Your task to perform on an android device: set the timer Image 0: 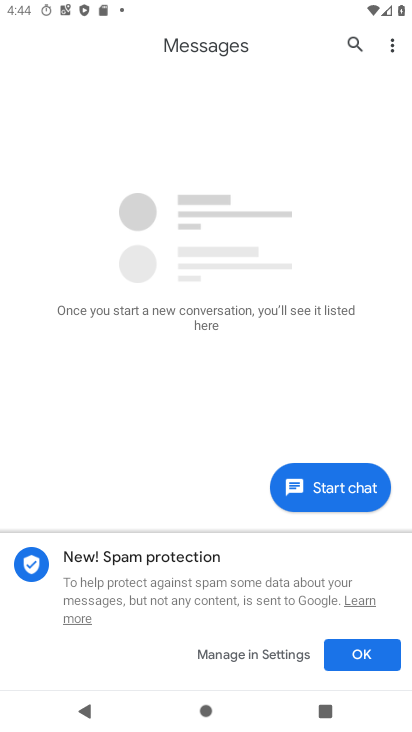
Step 0: press home button
Your task to perform on an android device: set the timer Image 1: 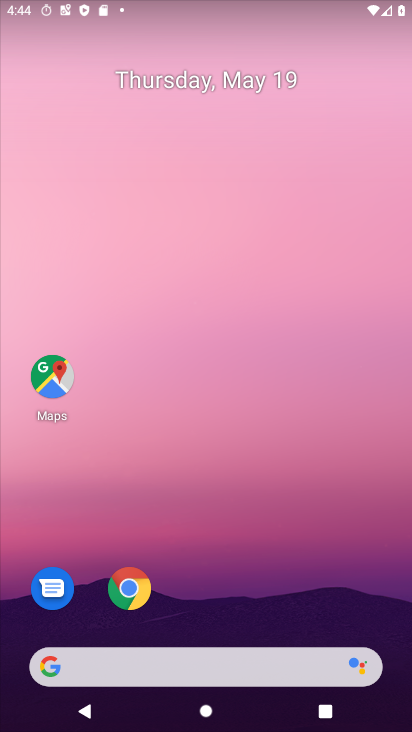
Step 1: drag from (208, 635) to (287, 39)
Your task to perform on an android device: set the timer Image 2: 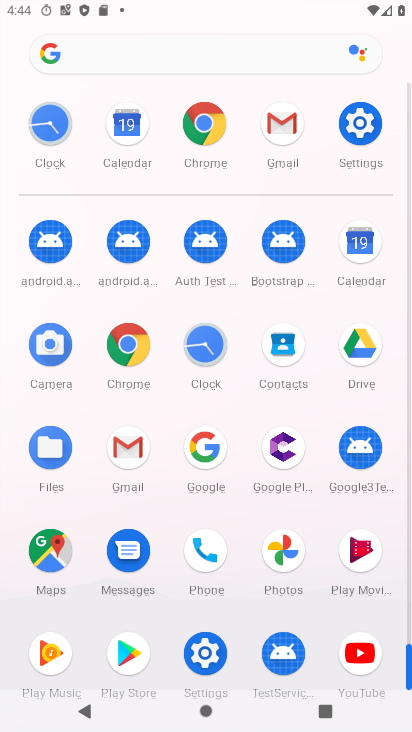
Step 2: click (199, 352)
Your task to perform on an android device: set the timer Image 3: 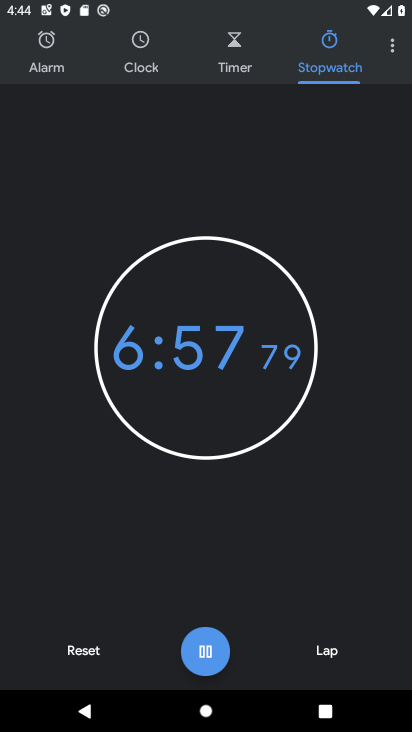
Step 3: click (78, 659)
Your task to perform on an android device: set the timer Image 4: 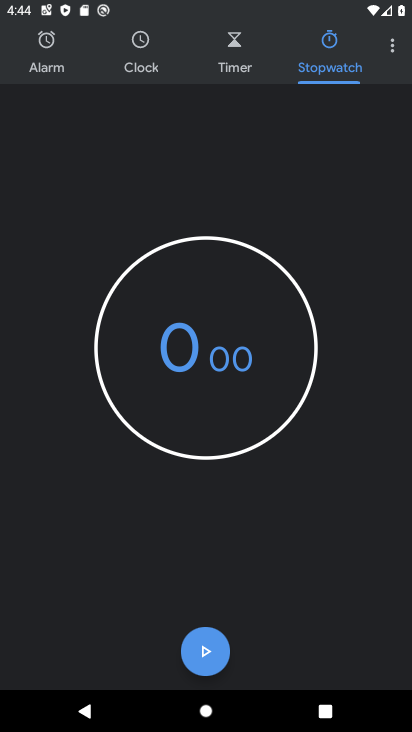
Step 4: click (255, 77)
Your task to perform on an android device: set the timer Image 5: 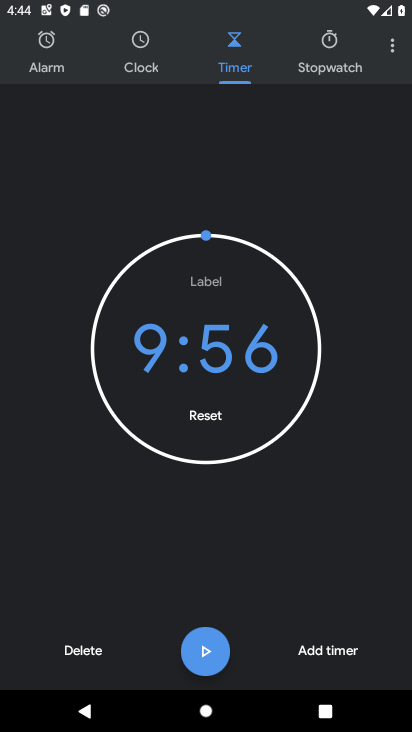
Step 5: click (88, 656)
Your task to perform on an android device: set the timer Image 6: 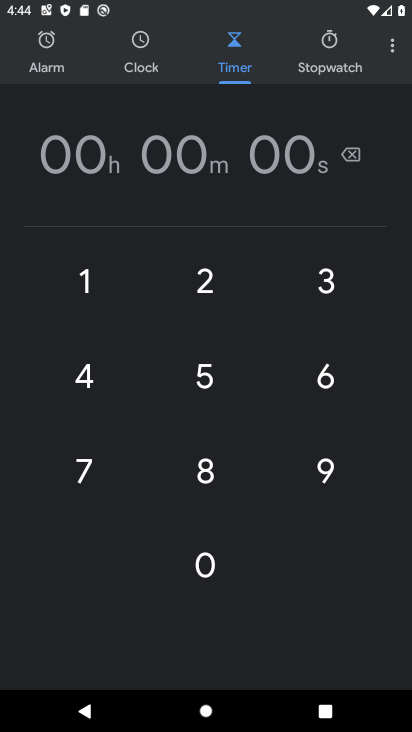
Step 6: click (318, 470)
Your task to perform on an android device: set the timer Image 7: 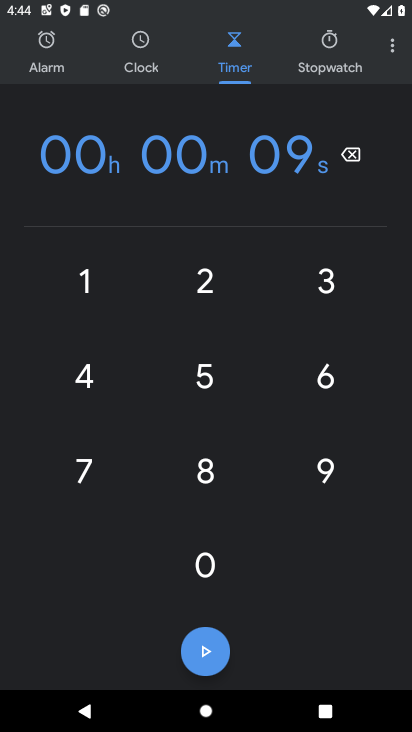
Step 7: click (196, 381)
Your task to perform on an android device: set the timer Image 8: 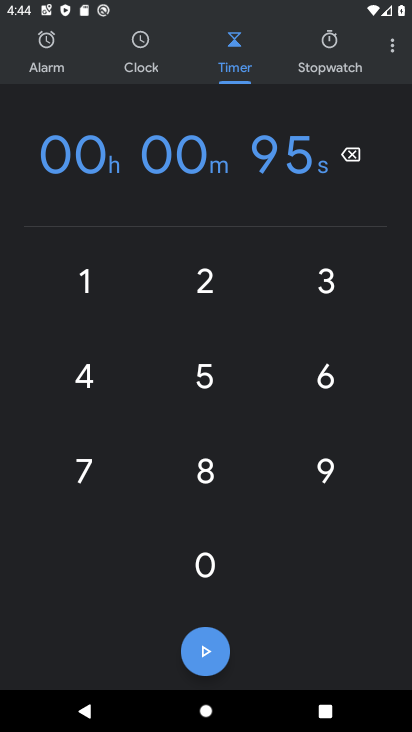
Step 8: click (90, 457)
Your task to perform on an android device: set the timer Image 9: 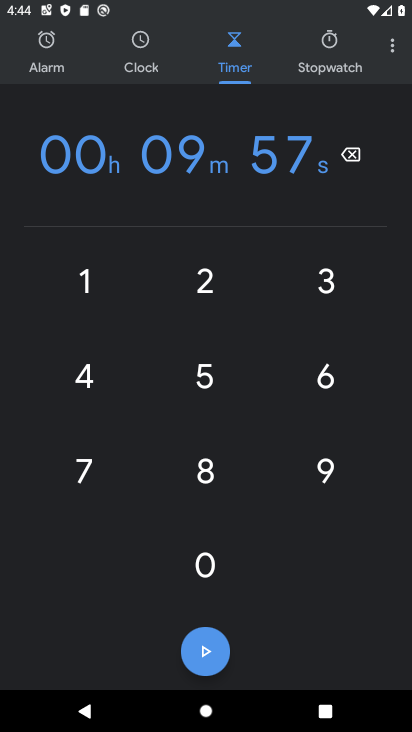
Step 9: click (218, 657)
Your task to perform on an android device: set the timer Image 10: 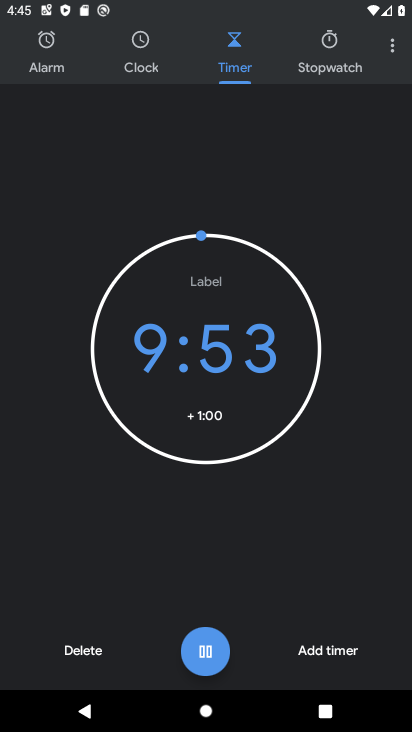
Step 10: task complete